Your task to perform on an android device: show emergency info Image 0: 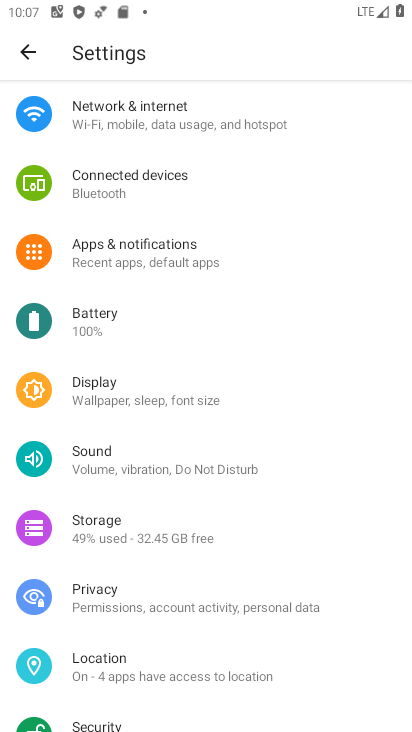
Step 0: drag from (259, 569) to (270, 187)
Your task to perform on an android device: show emergency info Image 1: 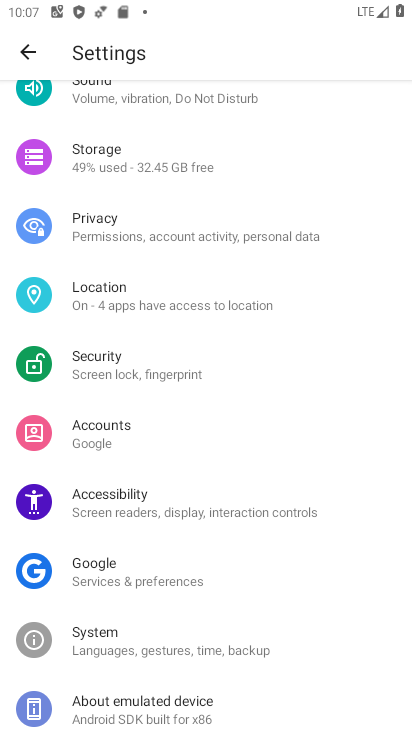
Step 1: click (157, 699)
Your task to perform on an android device: show emergency info Image 2: 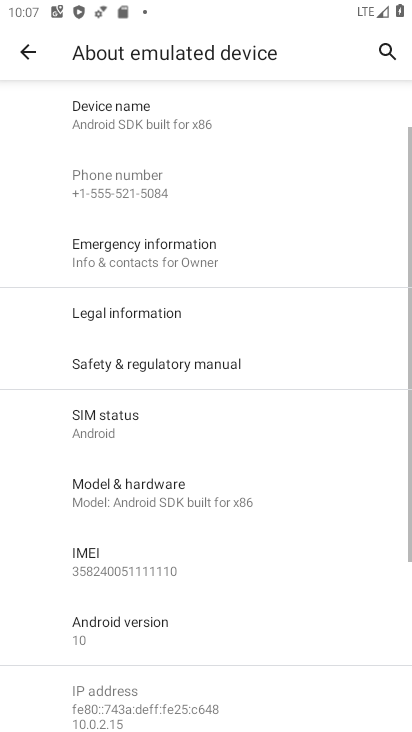
Step 2: click (191, 249)
Your task to perform on an android device: show emergency info Image 3: 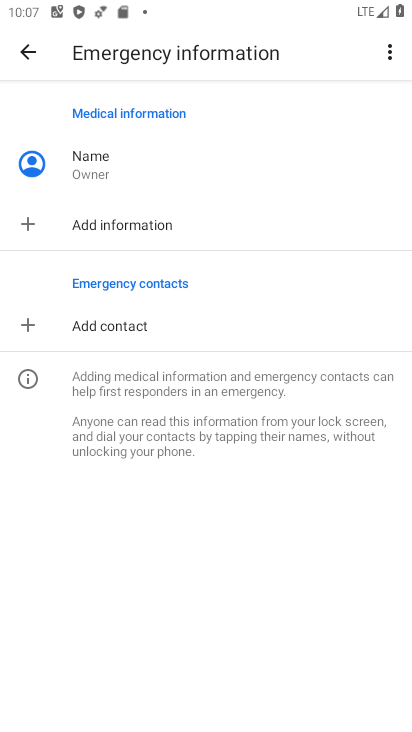
Step 3: task complete